Your task to perform on an android device: Go to sound settings Image 0: 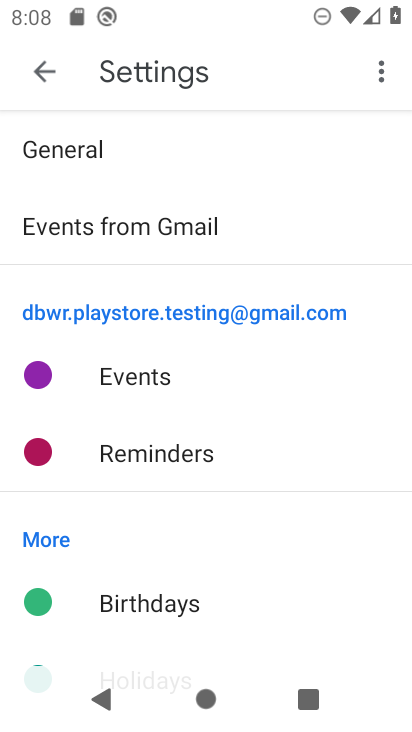
Step 0: press back button
Your task to perform on an android device: Go to sound settings Image 1: 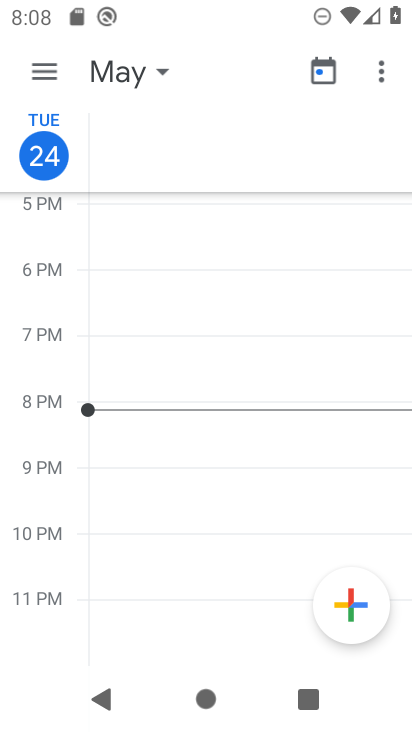
Step 1: press home button
Your task to perform on an android device: Go to sound settings Image 2: 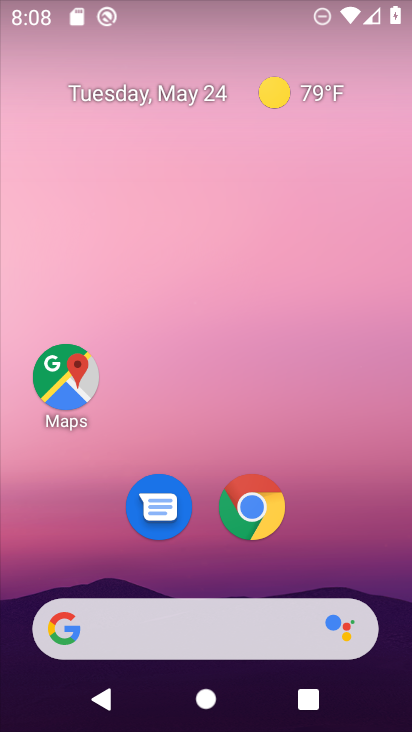
Step 2: drag from (343, 570) to (238, 37)
Your task to perform on an android device: Go to sound settings Image 3: 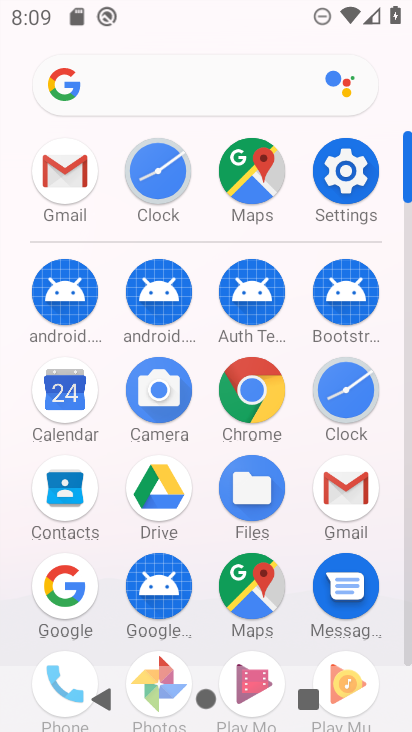
Step 3: drag from (4, 547) to (11, 195)
Your task to perform on an android device: Go to sound settings Image 4: 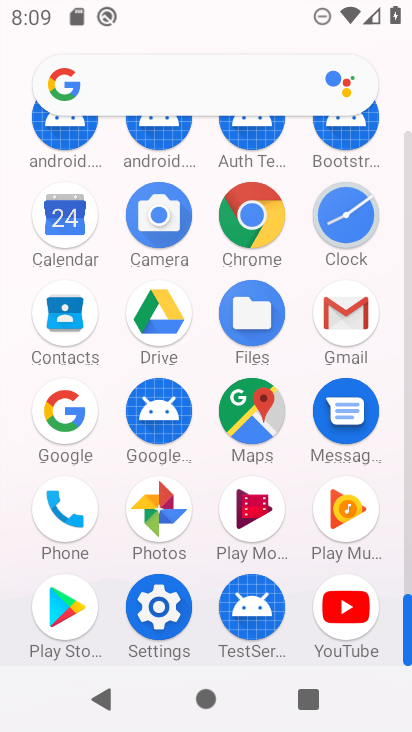
Step 4: click (154, 601)
Your task to perform on an android device: Go to sound settings Image 5: 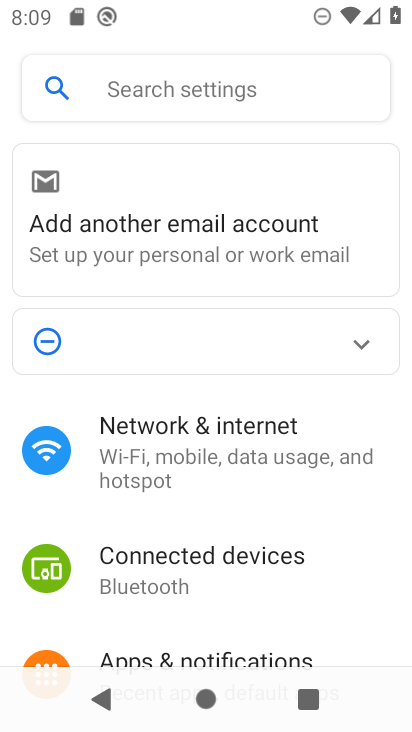
Step 5: drag from (310, 575) to (313, 180)
Your task to perform on an android device: Go to sound settings Image 6: 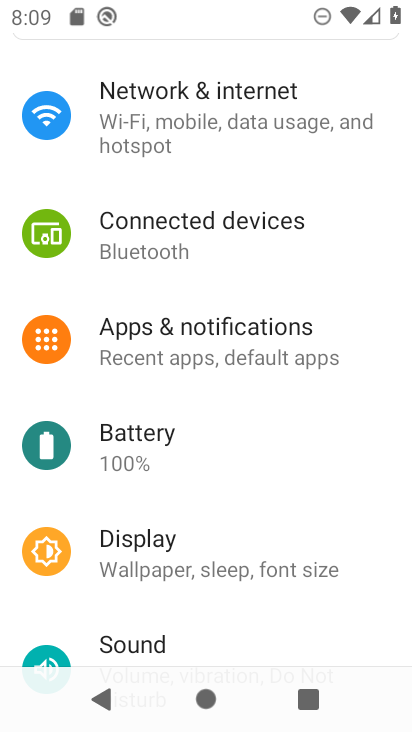
Step 6: drag from (254, 527) to (281, 189)
Your task to perform on an android device: Go to sound settings Image 7: 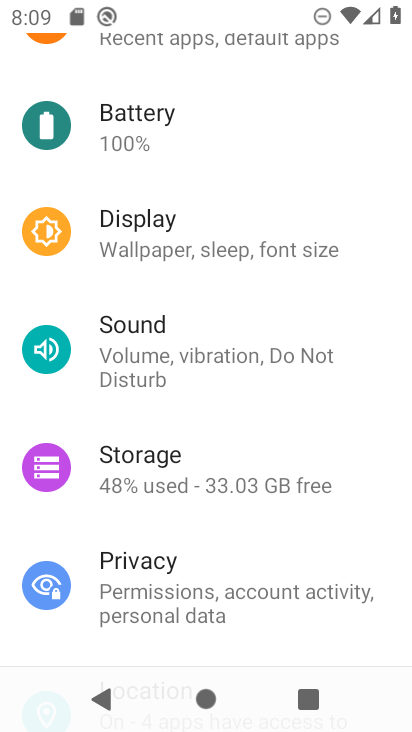
Step 7: drag from (272, 500) to (265, 301)
Your task to perform on an android device: Go to sound settings Image 8: 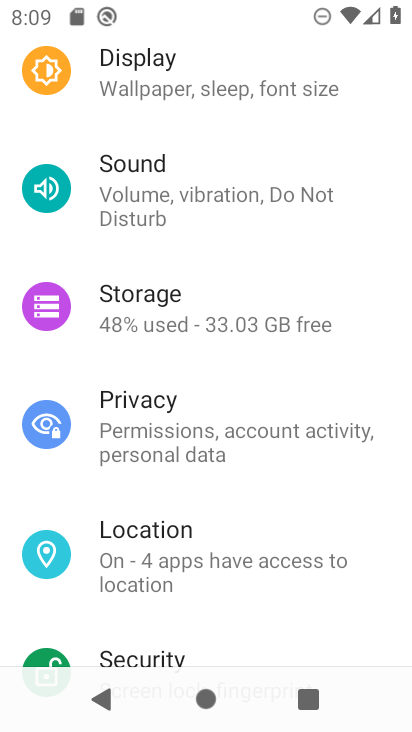
Step 8: click (195, 188)
Your task to perform on an android device: Go to sound settings Image 9: 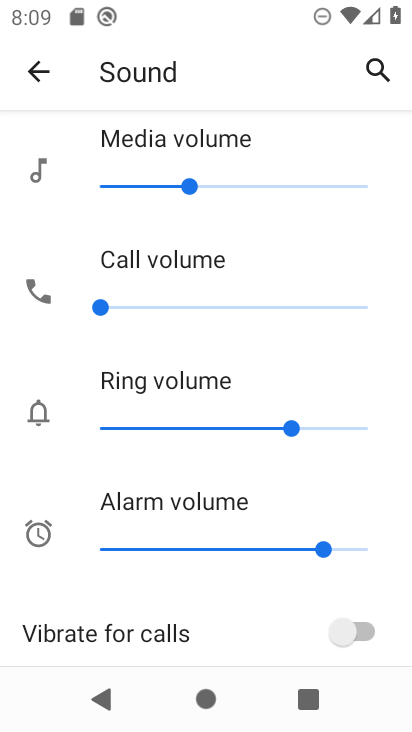
Step 9: task complete